Your task to perform on an android device: Search for seafood restaurants on Google Maps Image 0: 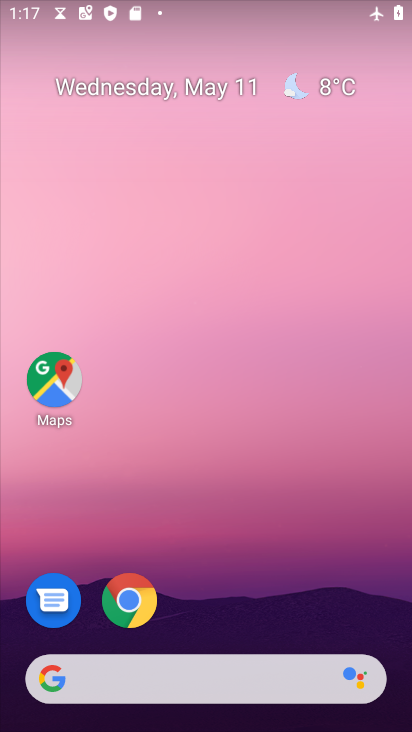
Step 0: click (62, 364)
Your task to perform on an android device: Search for seafood restaurants on Google Maps Image 1: 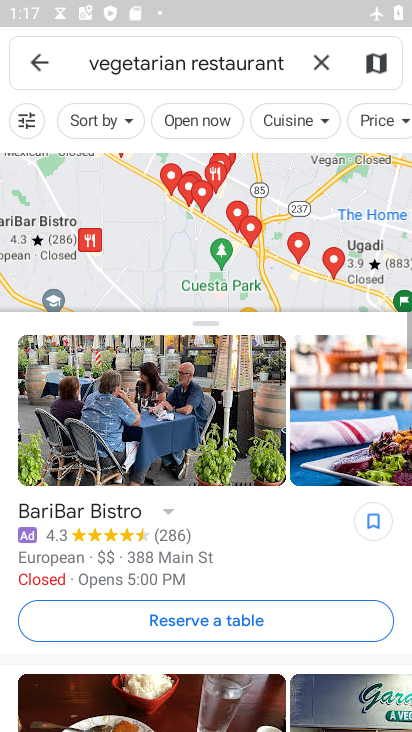
Step 1: click (315, 56)
Your task to perform on an android device: Search for seafood restaurants on Google Maps Image 2: 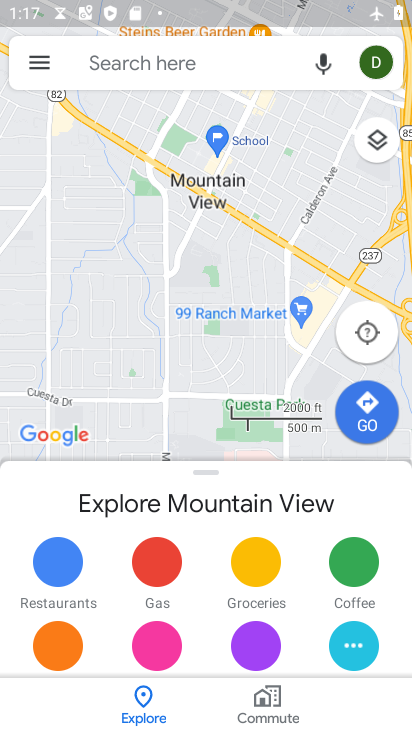
Step 2: click (173, 59)
Your task to perform on an android device: Search for seafood restaurants on Google Maps Image 3: 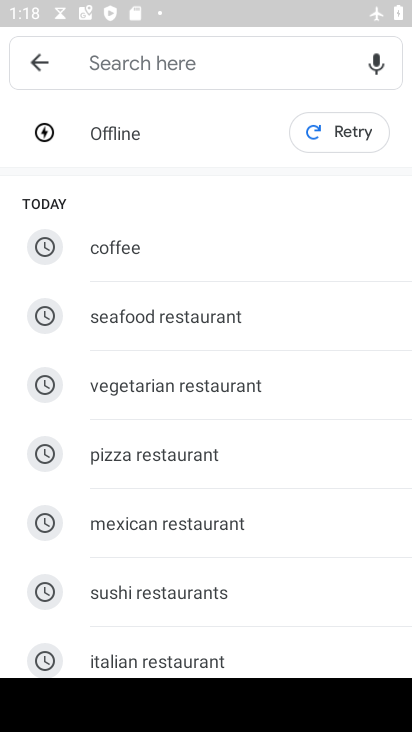
Step 3: click (161, 316)
Your task to perform on an android device: Search for seafood restaurants on Google Maps Image 4: 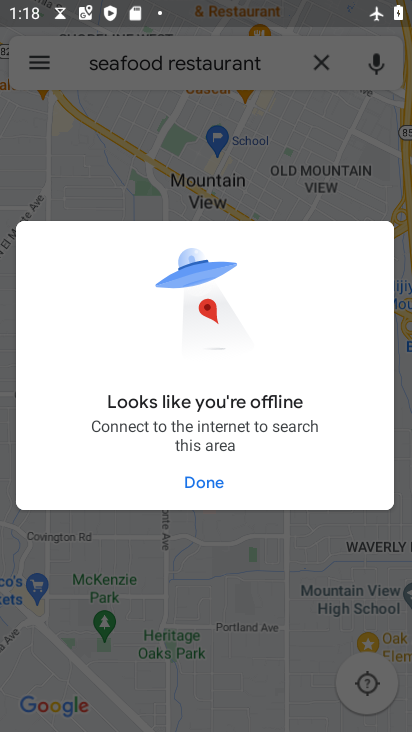
Step 4: task complete